Your task to perform on an android device: open app "Reddit" (install if not already installed) Image 0: 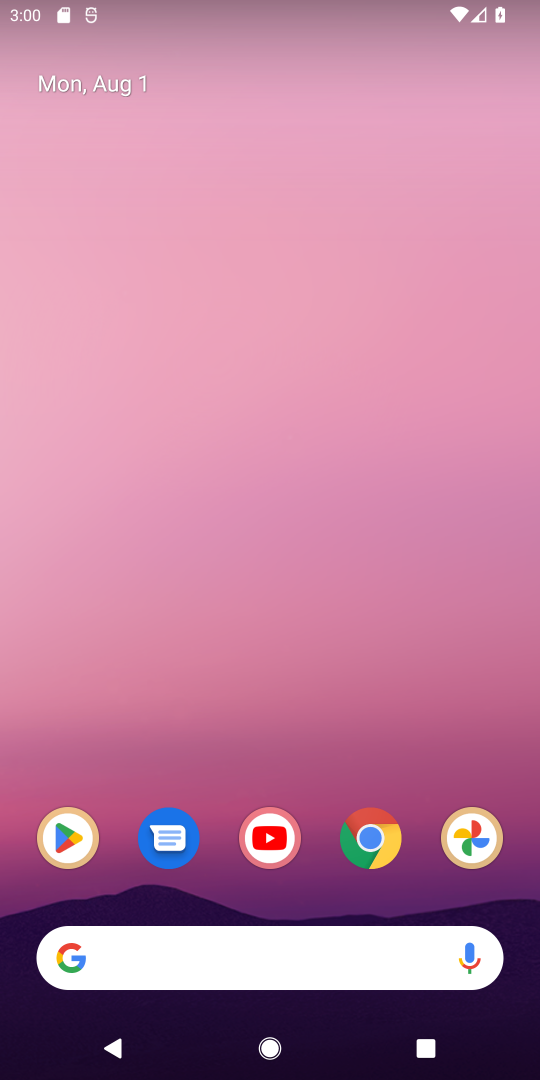
Step 0: click (54, 835)
Your task to perform on an android device: open app "Reddit" (install if not already installed) Image 1: 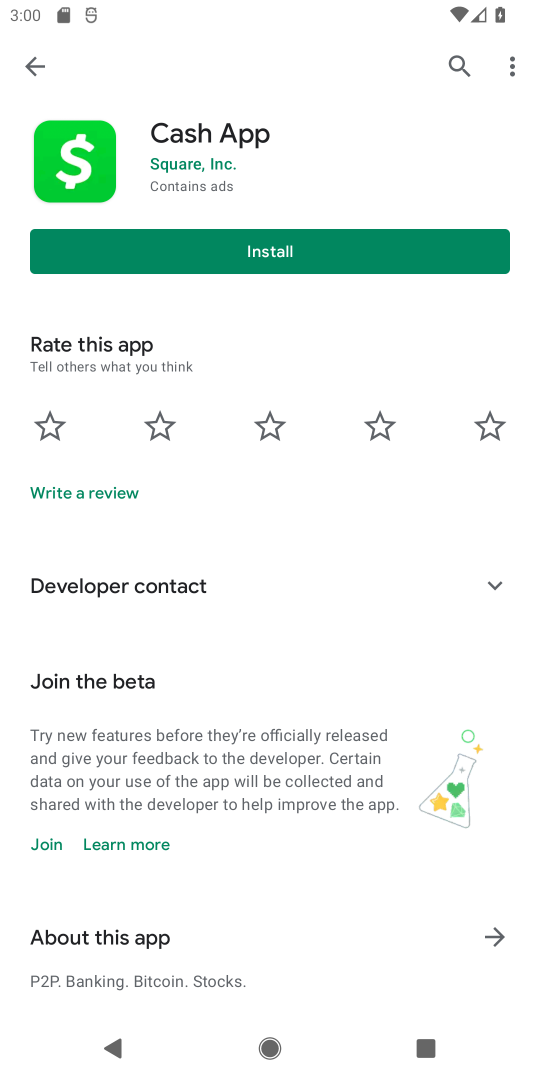
Step 1: click (451, 56)
Your task to perform on an android device: open app "Reddit" (install if not already installed) Image 2: 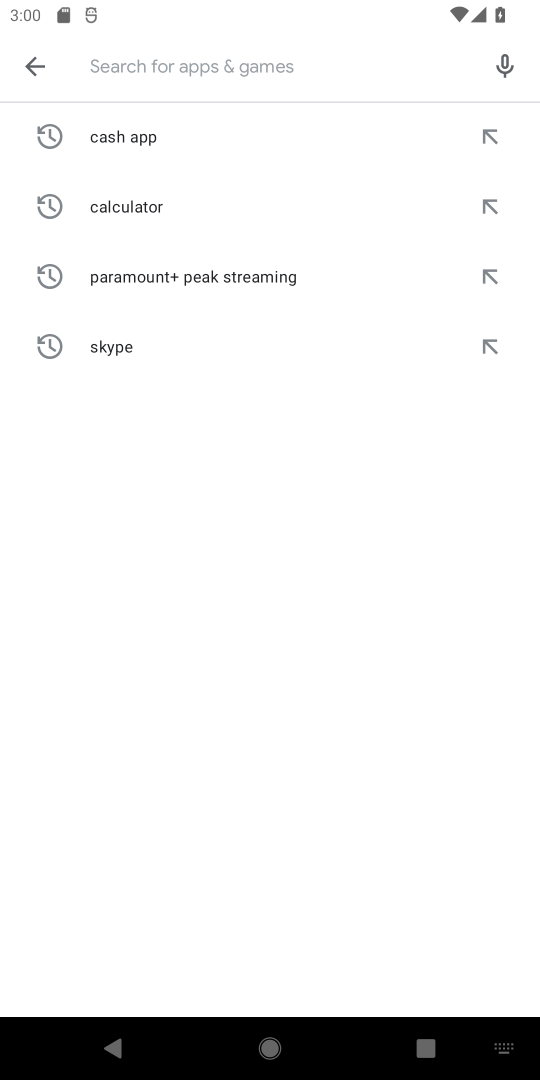
Step 2: type "Reddit"
Your task to perform on an android device: open app "Reddit" (install if not already installed) Image 3: 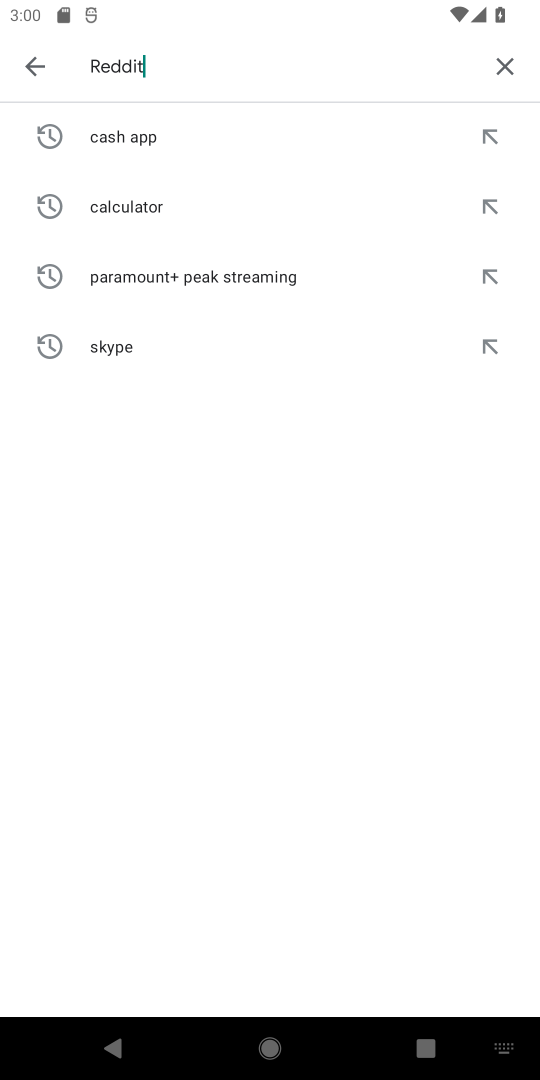
Step 3: type ""
Your task to perform on an android device: open app "Reddit" (install if not already installed) Image 4: 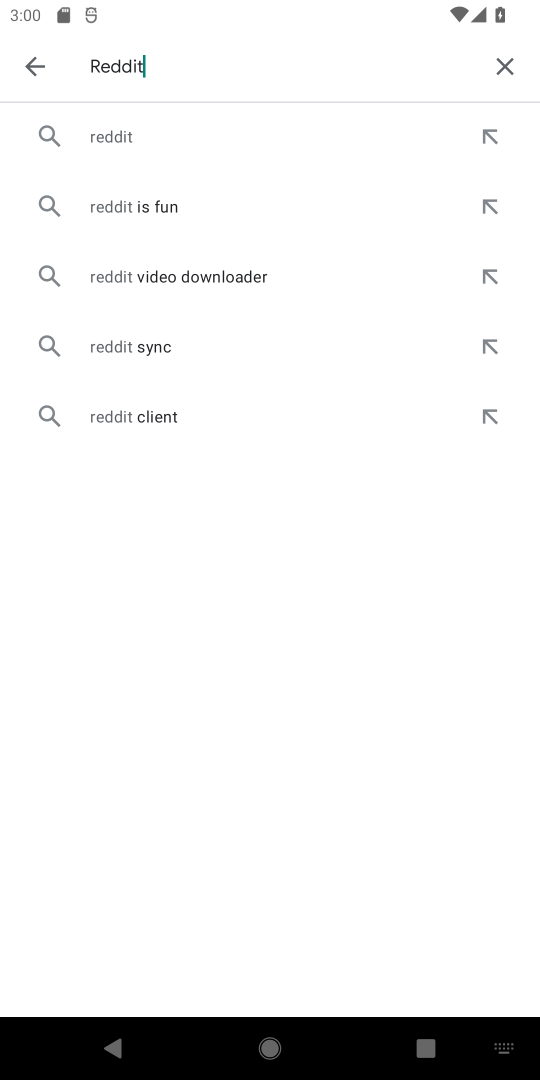
Step 4: click (200, 142)
Your task to perform on an android device: open app "Reddit" (install if not already installed) Image 5: 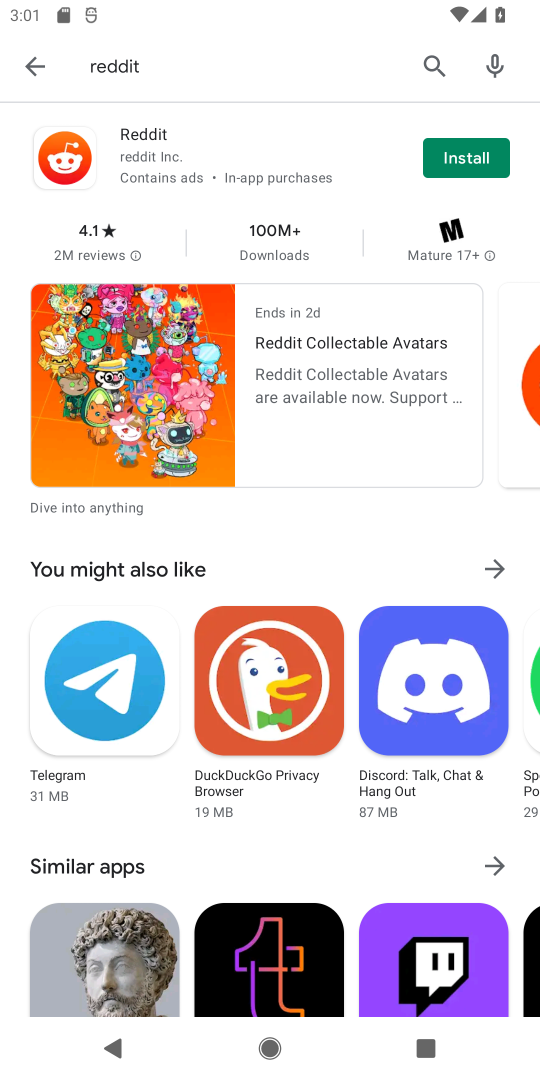
Step 5: click (253, 149)
Your task to perform on an android device: open app "Reddit" (install if not already installed) Image 6: 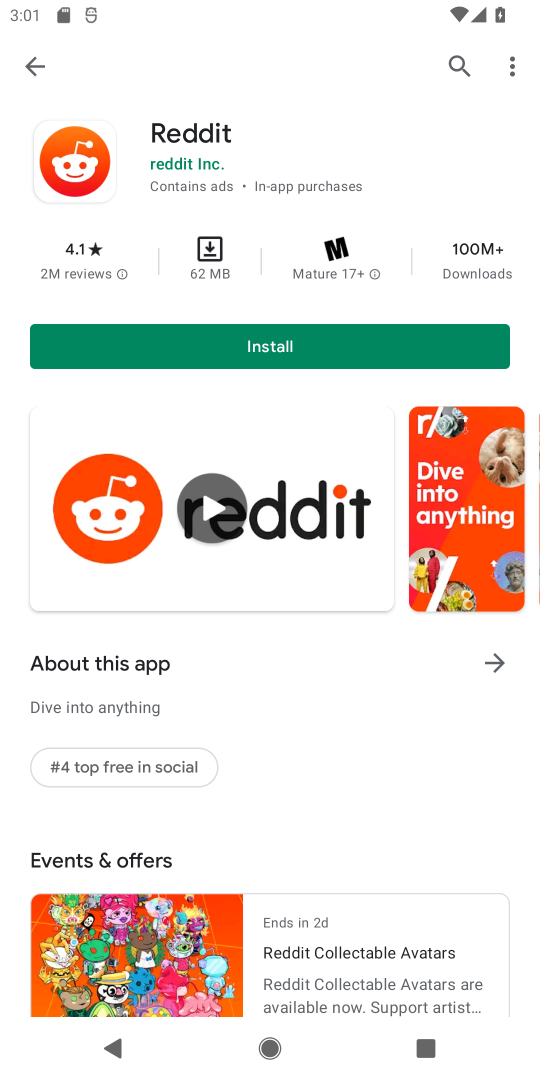
Step 6: click (305, 339)
Your task to perform on an android device: open app "Reddit" (install if not already installed) Image 7: 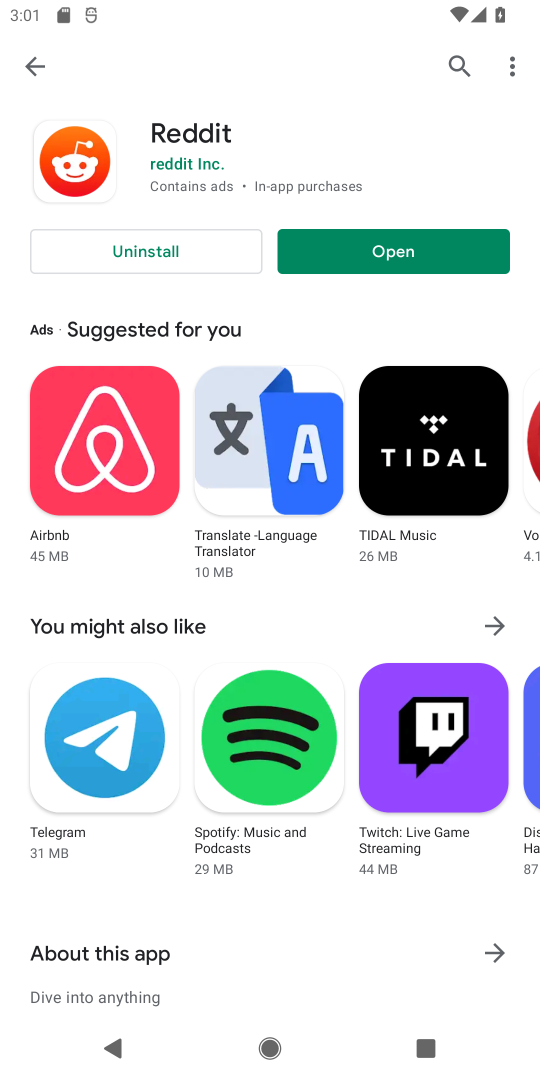
Step 7: click (452, 252)
Your task to perform on an android device: open app "Reddit" (install if not already installed) Image 8: 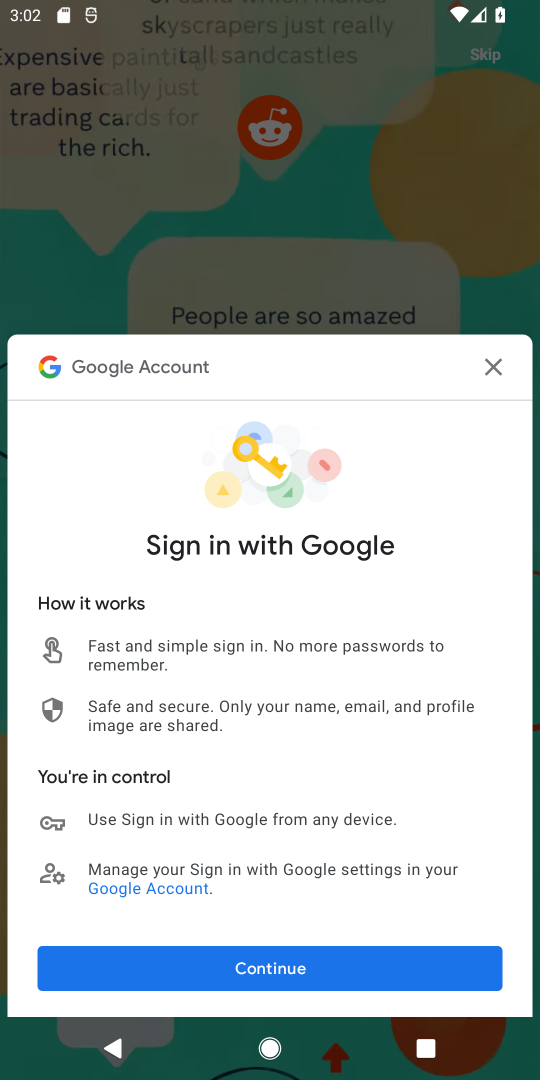
Step 8: task complete